Your task to perform on an android device: Go to Reddit.com Image 0: 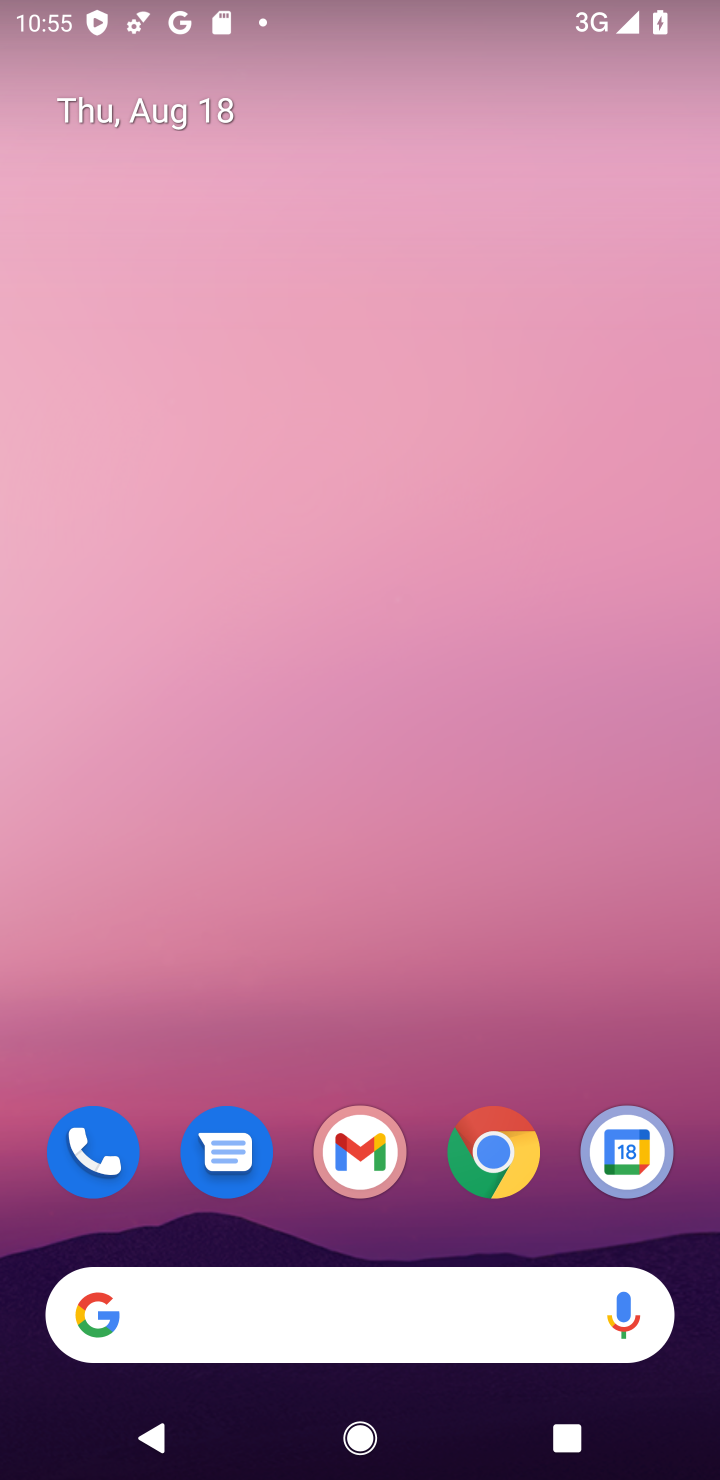
Step 0: click (513, 1315)
Your task to perform on an android device: Go to Reddit.com Image 1: 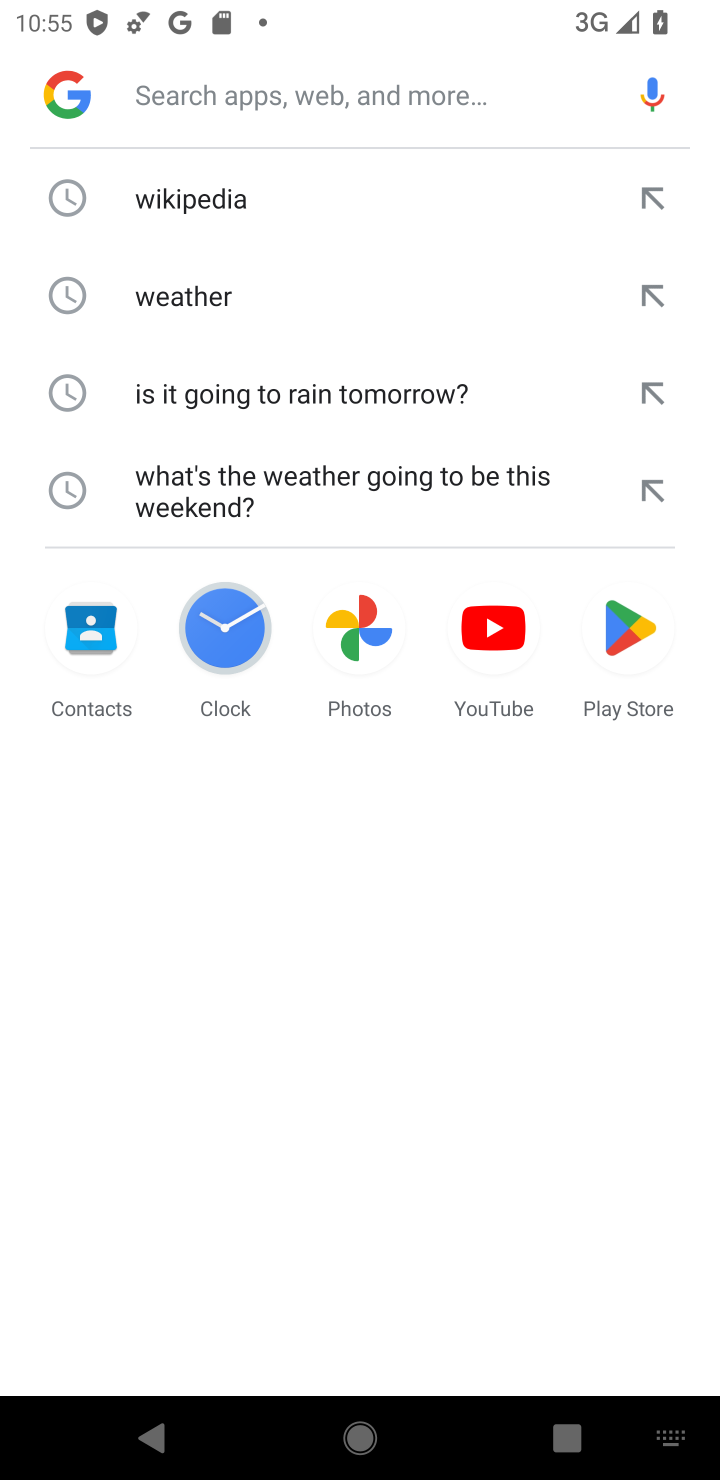
Step 1: type "reddit.com"
Your task to perform on an android device: Go to Reddit.com Image 2: 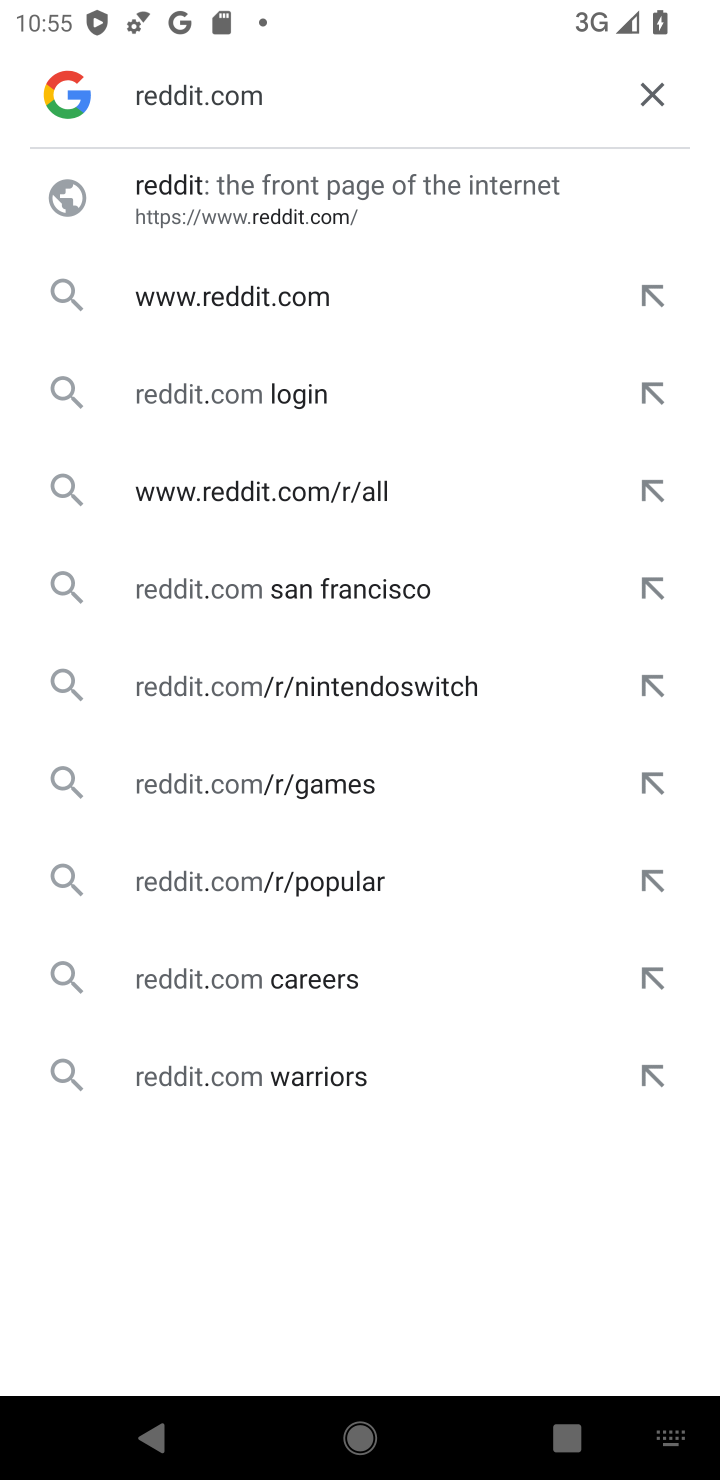
Step 2: click (425, 185)
Your task to perform on an android device: Go to Reddit.com Image 3: 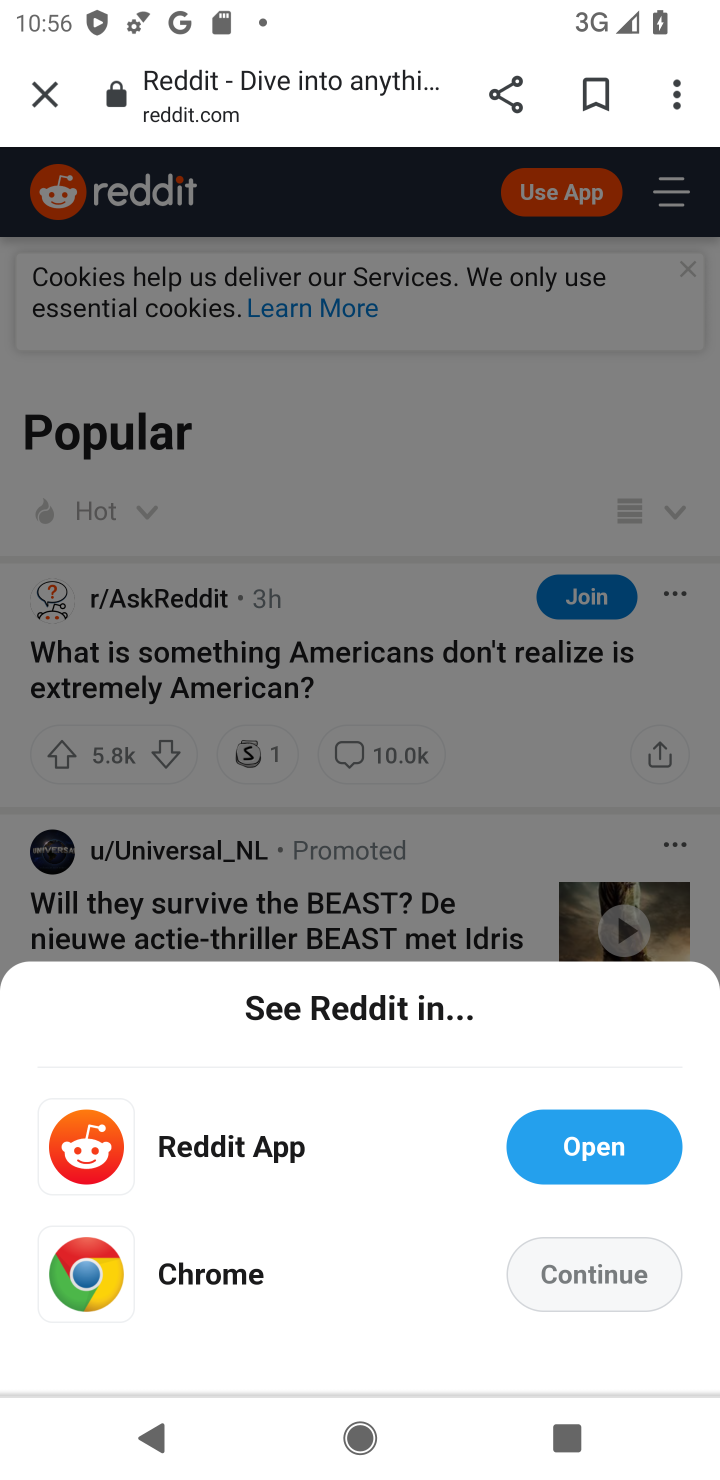
Step 3: click (633, 1273)
Your task to perform on an android device: Go to Reddit.com Image 4: 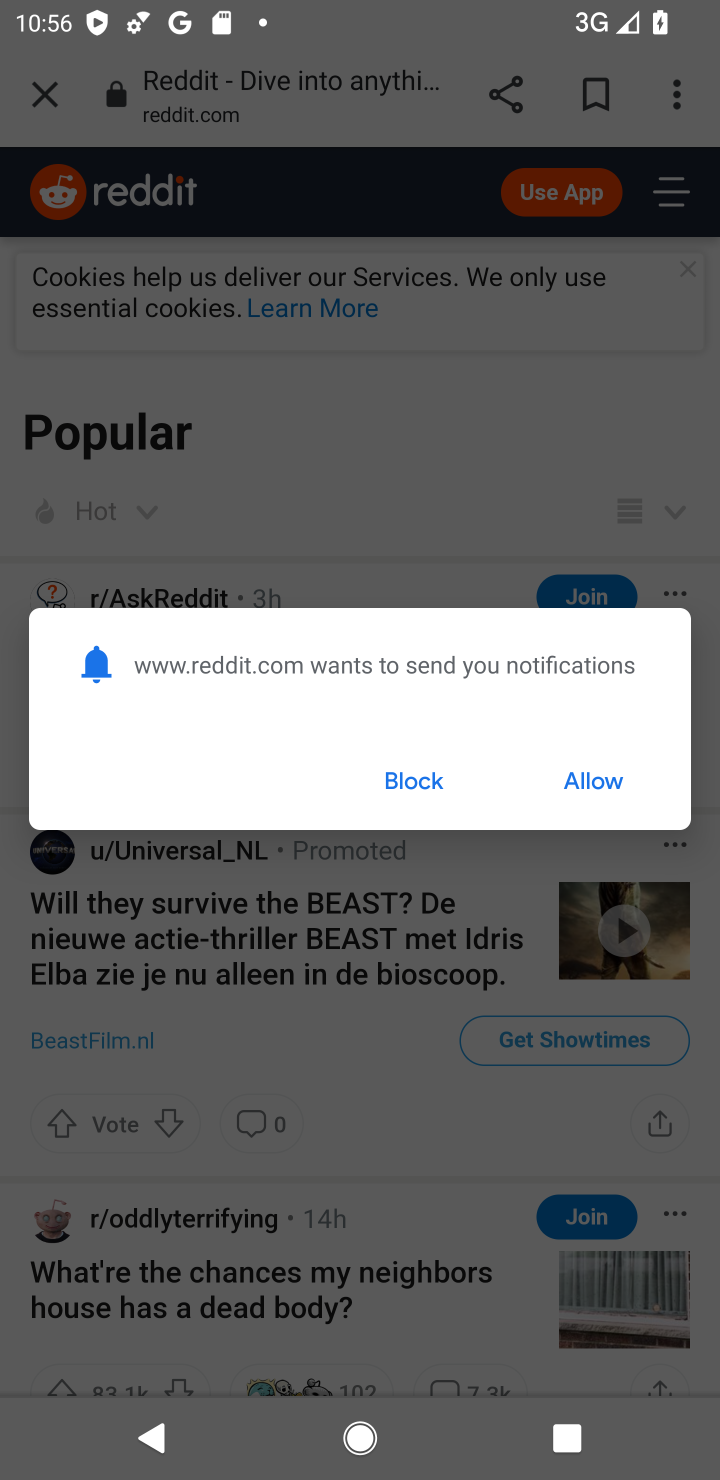
Step 4: click (606, 771)
Your task to perform on an android device: Go to Reddit.com Image 5: 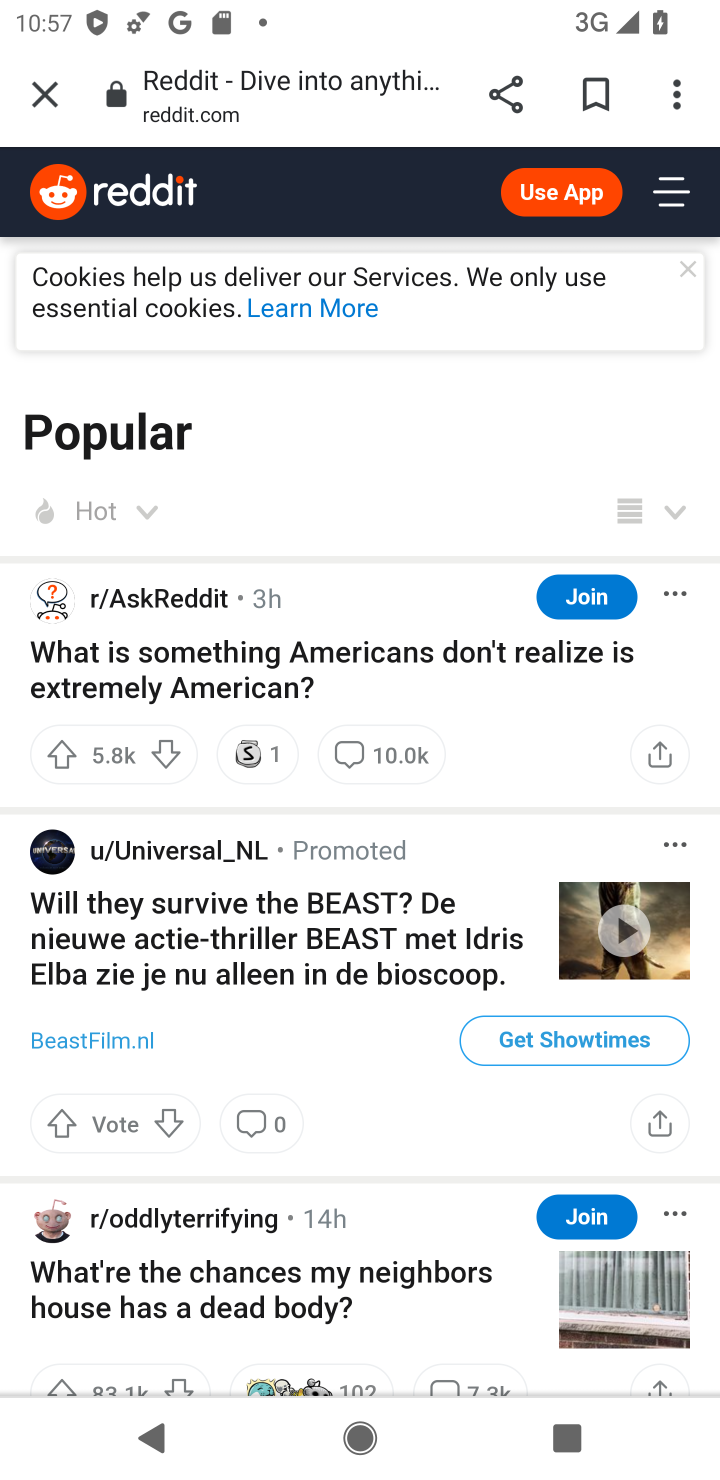
Step 5: task complete